Your task to perform on an android device: Open display settings Image 0: 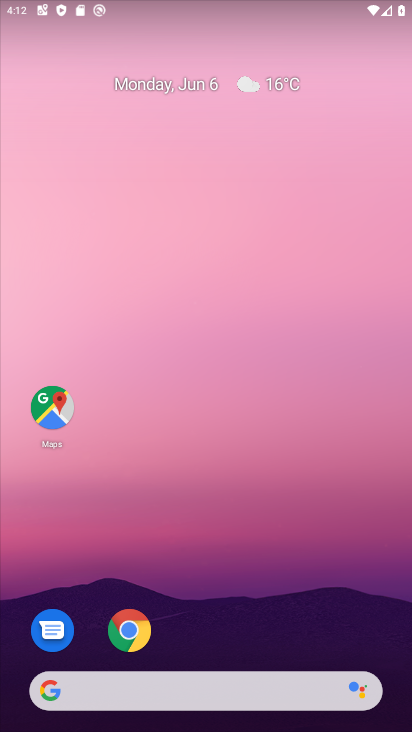
Step 0: drag from (206, 613) to (190, 42)
Your task to perform on an android device: Open display settings Image 1: 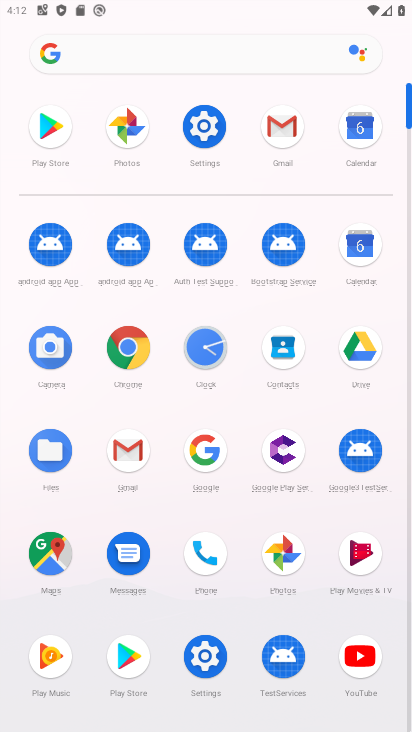
Step 1: click (208, 116)
Your task to perform on an android device: Open display settings Image 2: 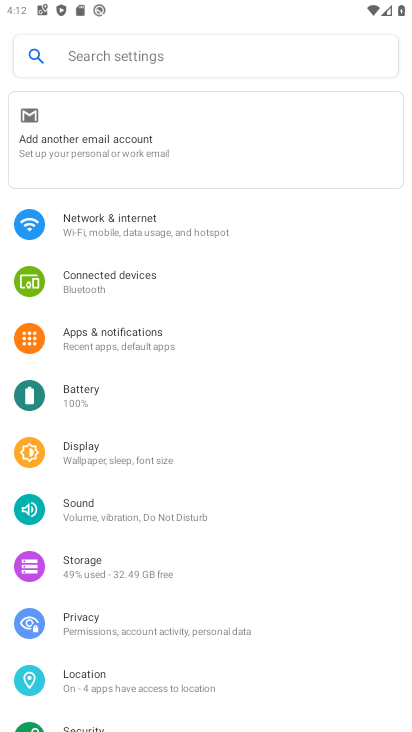
Step 2: click (97, 456)
Your task to perform on an android device: Open display settings Image 3: 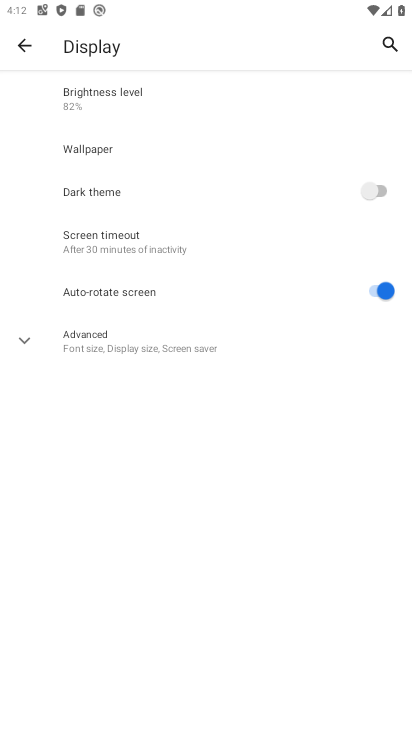
Step 3: task complete